Your task to perform on an android device: Do I have any events this weekend? Image 0: 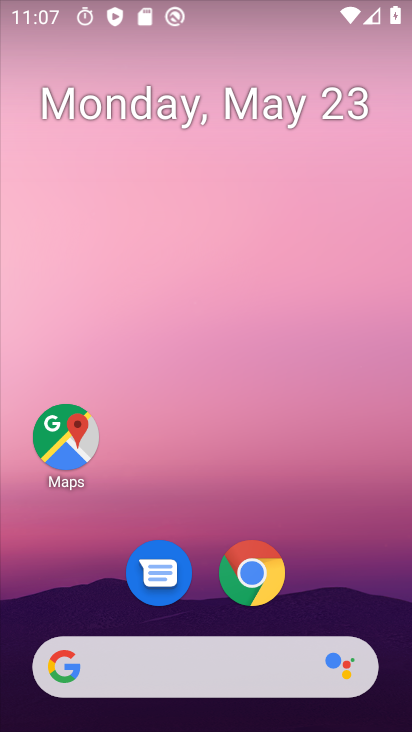
Step 0: drag from (342, 580) to (260, 8)
Your task to perform on an android device: Do I have any events this weekend? Image 1: 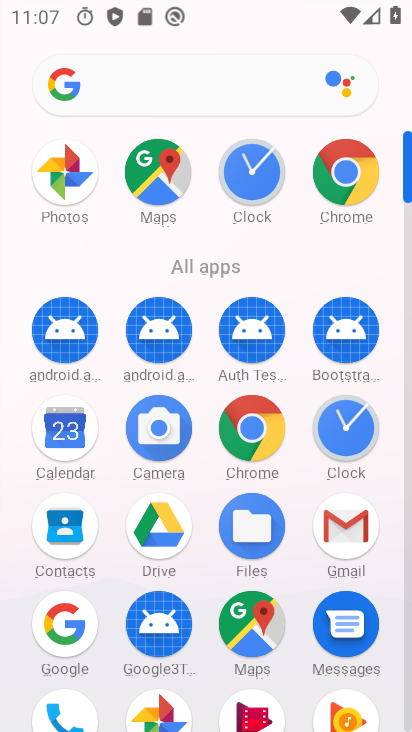
Step 1: click (66, 430)
Your task to perform on an android device: Do I have any events this weekend? Image 2: 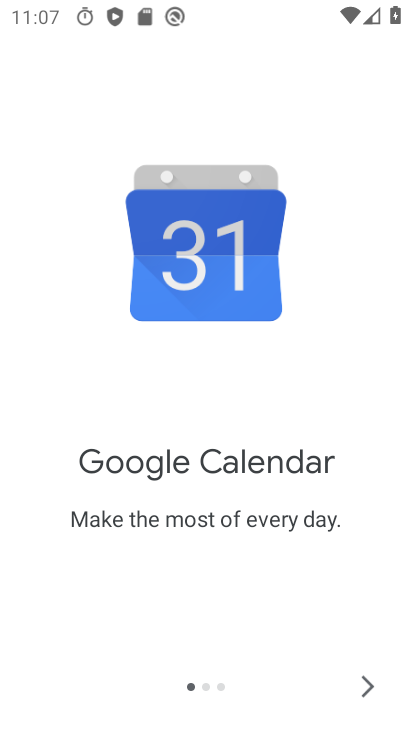
Step 2: click (367, 681)
Your task to perform on an android device: Do I have any events this weekend? Image 3: 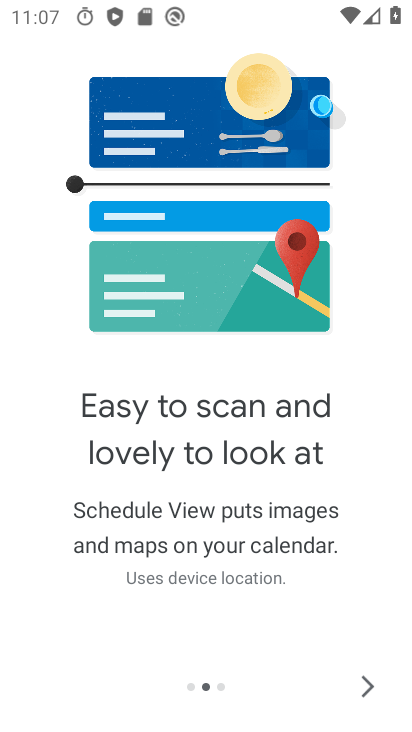
Step 3: click (367, 681)
Your task to perform on an android device: Do I have any events this weekend? Image 4: 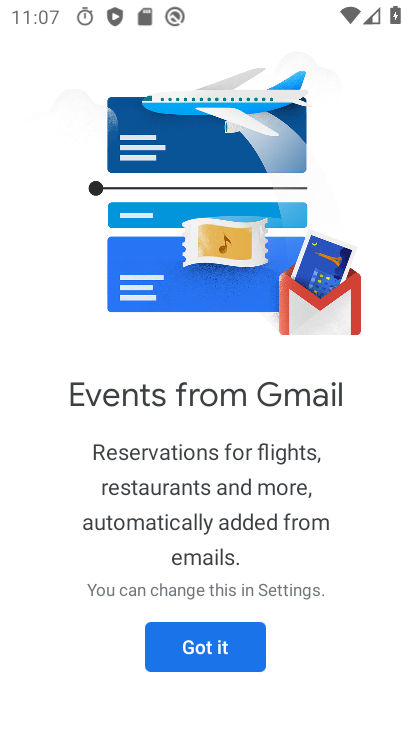
Step 4: click (208, 649)
Your task to perform on an android device: Do I have any events this weekend? Image 5: 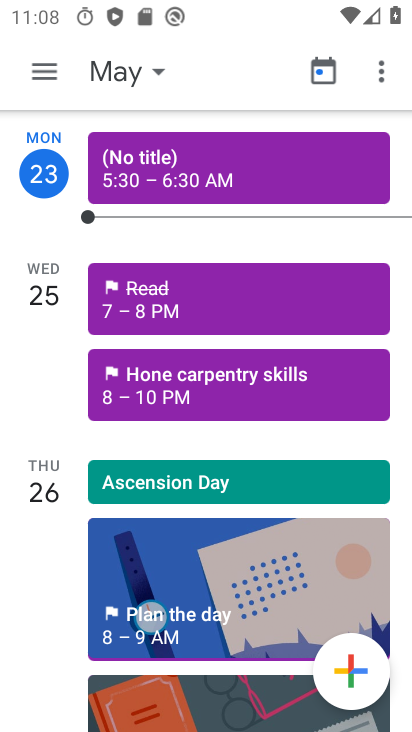
Step 5: click (158, 69)
Your task to perform on an android device: Do I have any events this weekend? Image 6: 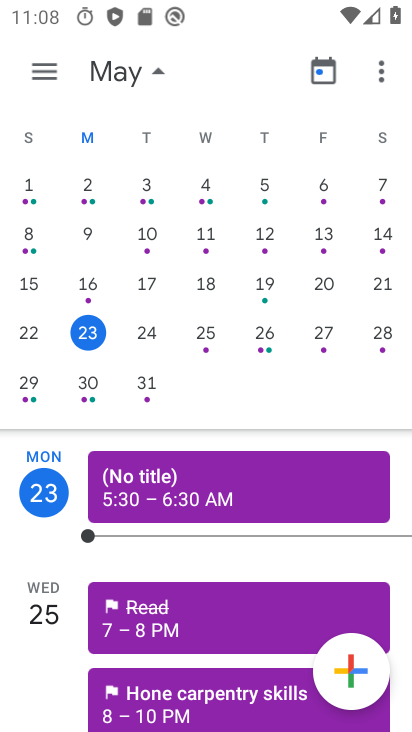
Step 6: click (380, 337)
Your task to perform on an android device: Do I have any events this weekend? Image 7: 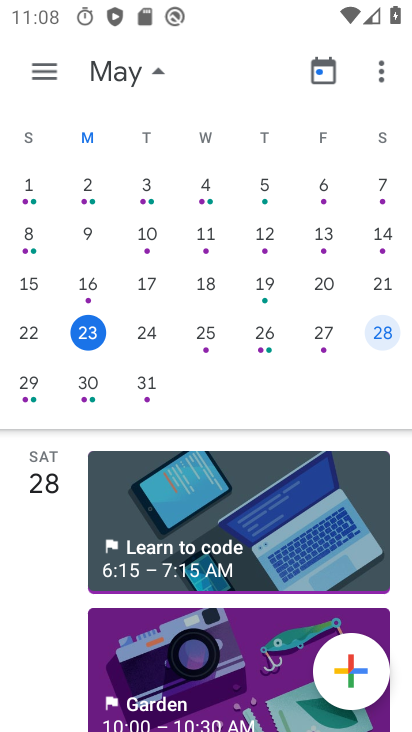
Step 7: click (186, 648)
Your task to perform on an android device: Do I have any events this weekend? Image 8: 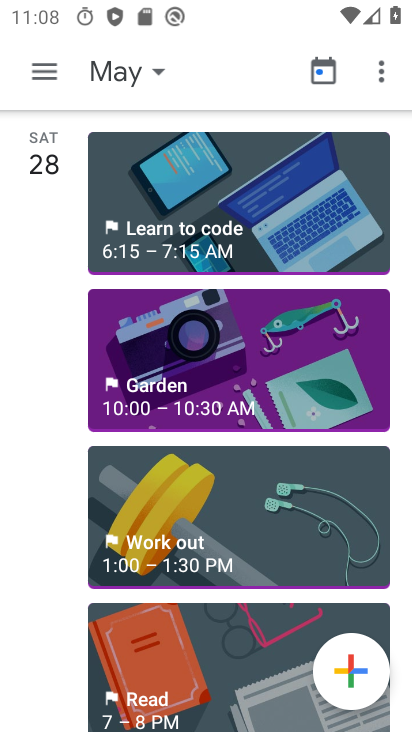
Step 8: click (231, 377)
Your task to perform on an android device: Do I have any events this weekend? Image 9: 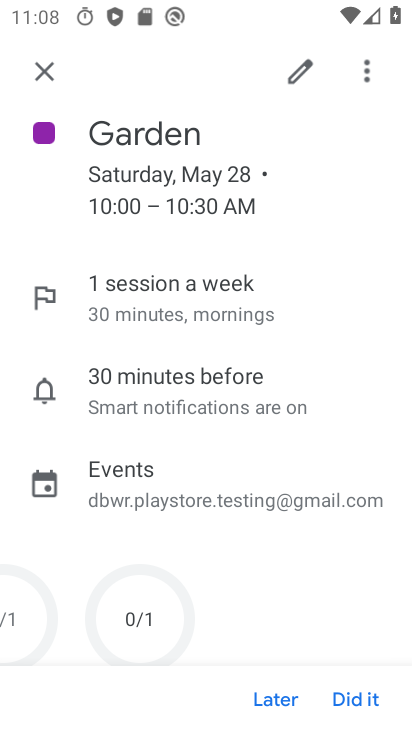
Step 9: task complete